Your task to perform on an android device: Search for "amazon basics triple a" on costco.com, select the first entry, and add it to the cart. Image 0: 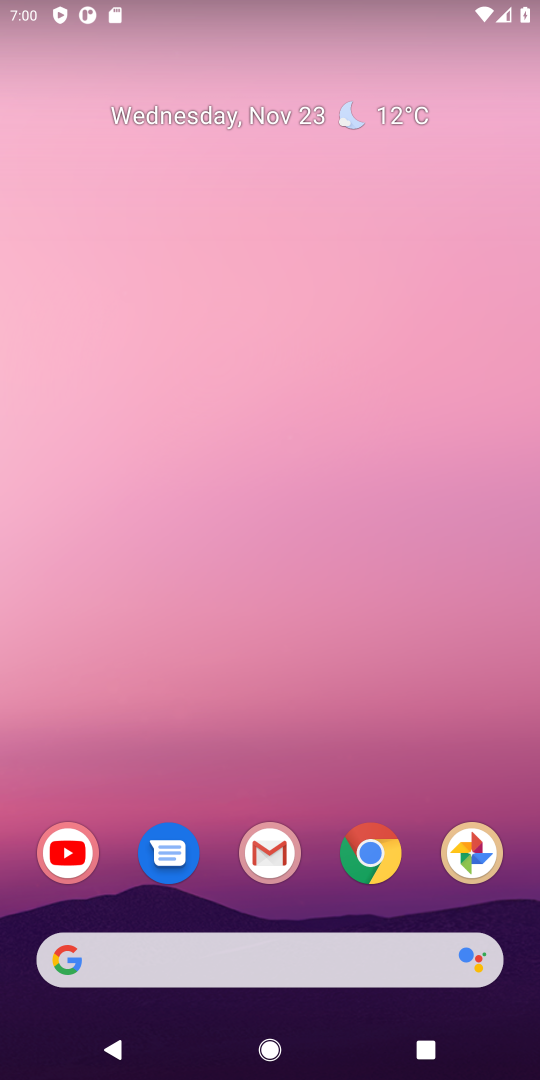
Step 0: click (370, 861)
Your task to perform on an android device: Search for "amazon basics triple a" on costco.com, select the first entry, and add it to the cart. Image 1: 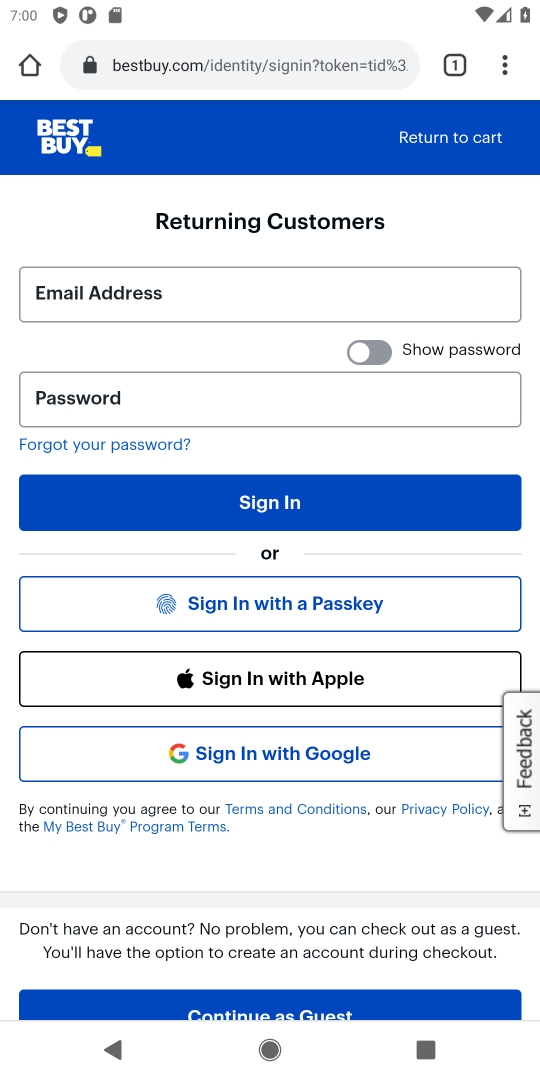
Step 1: click (229, 58)
Your task to perform on an android device: Search for "amazon basics triple a" on costco.com, select the first entry, and add it to the cart. Image 2: 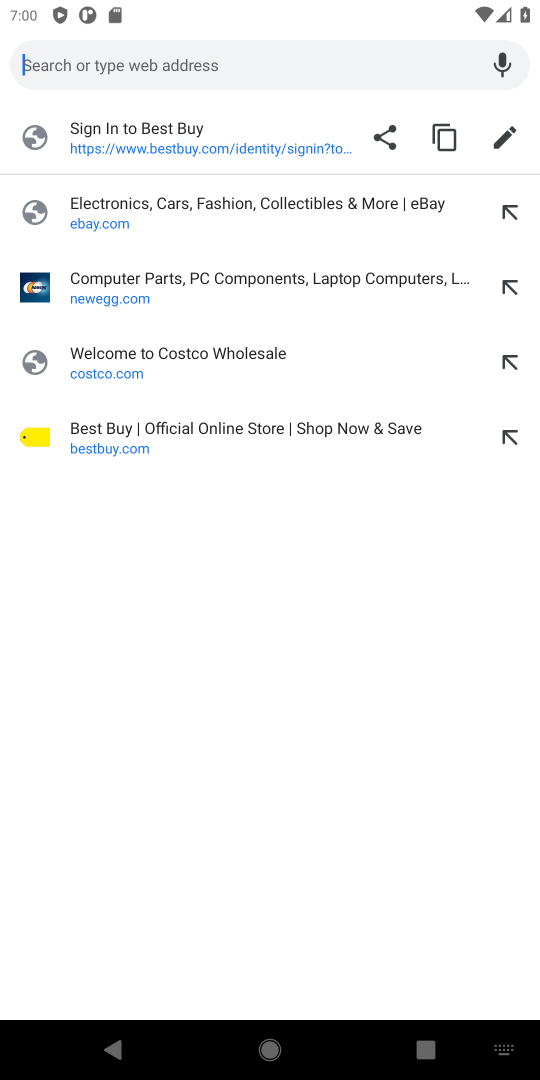
Step 2: click (110, 374)
Your task to perform on an android device: Search for "amazon basics triple a" on costco.com, select the first entry, and add it to the cart. Image 3: 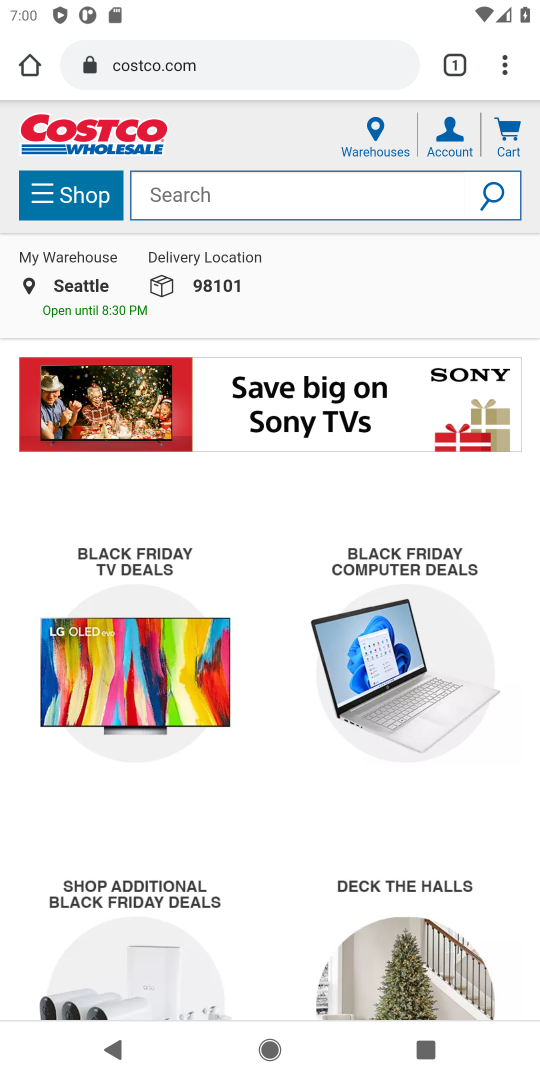
Step 3: click (195, 196)
Your task to perform on an android device: Search for "amazon basics triple a" on costco.com, select the first entry, and add it to the cart. Image 4: 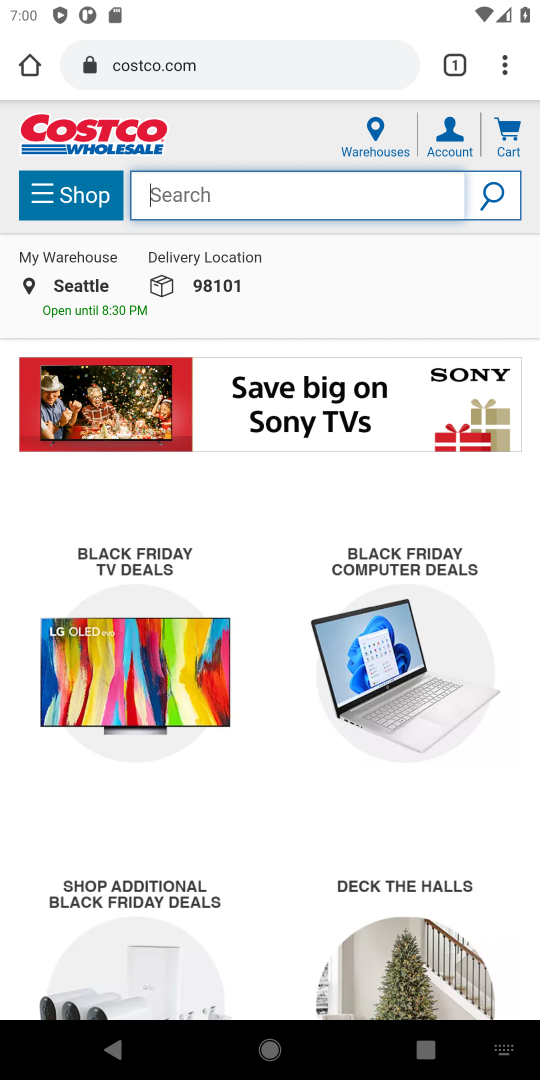
Step 4: type "amazon basics triple a"
Your task to perform on an android device: Search for "amazon basics triple a" on costco.com, select the first entry, and add it to the cart. Image 5: 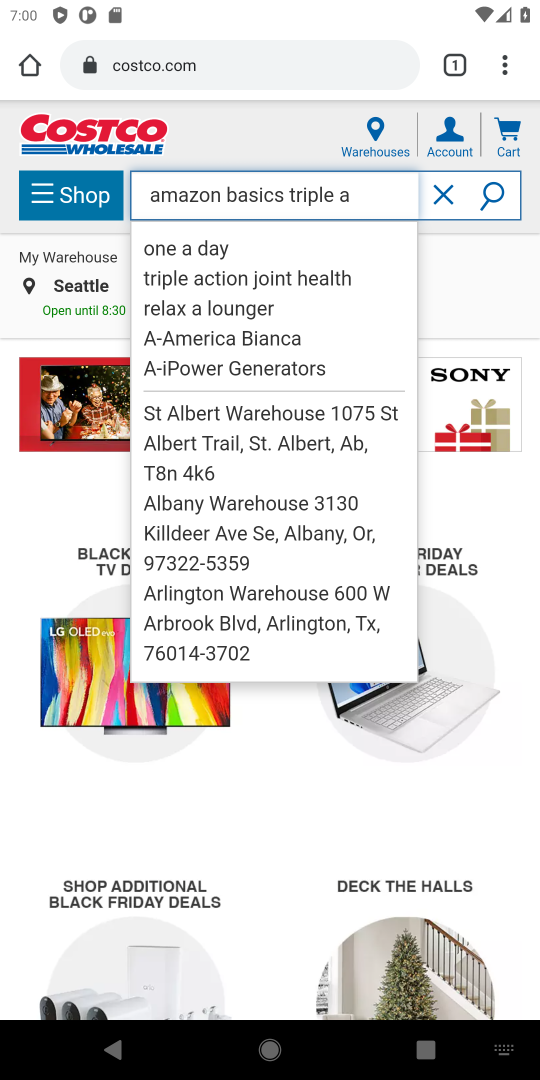
Step 5: click (499, 200)
Your task to perform on an android device: Search for "amazon basics triple a" on costco.com, select the first entry, and add it to the cart. Image 6: 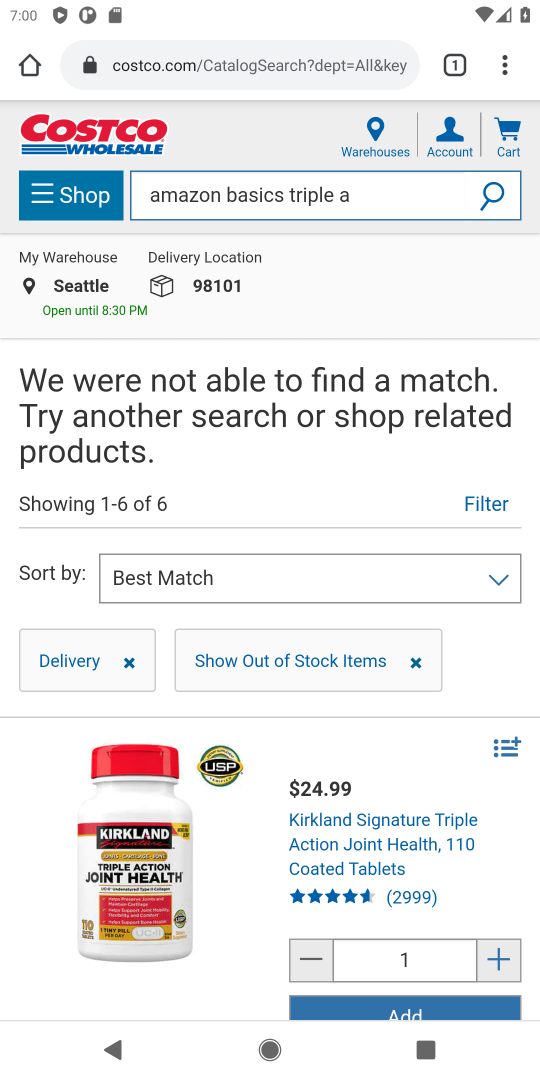
Step 6: task complete